Your task to perform on an android device: open the mobile data screen to see how much data has been used Image 0: 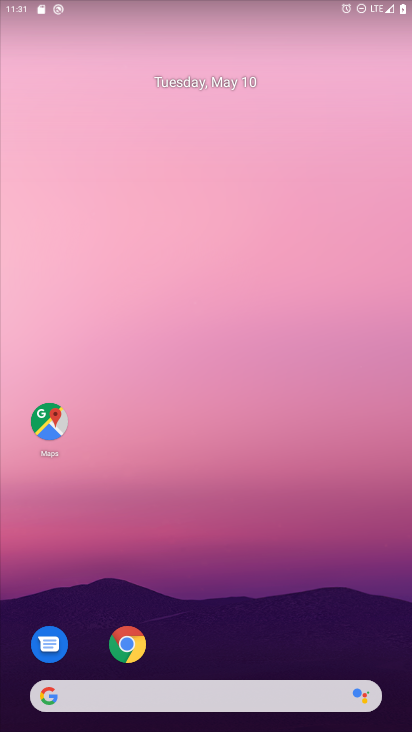
Step 0: drag from (217, 565) to (270, 191)
Your task to perform on an android device: open the mobile data screen to see how much data has been used Image 1: 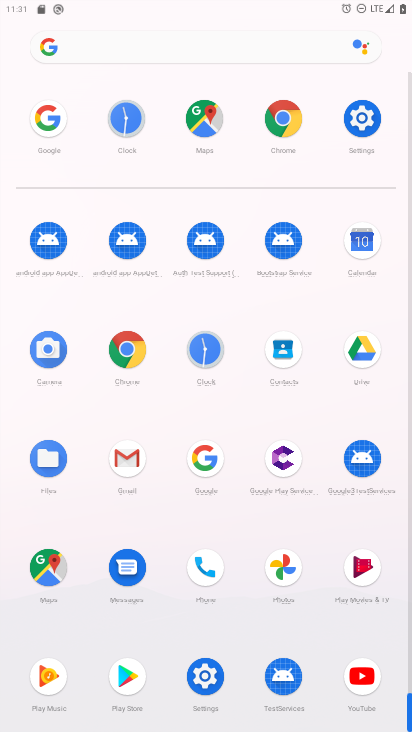
Step 1: click (369, 139)
Your task to perform on an android device: open the mobile data screen to see how much data has been used Image 2: 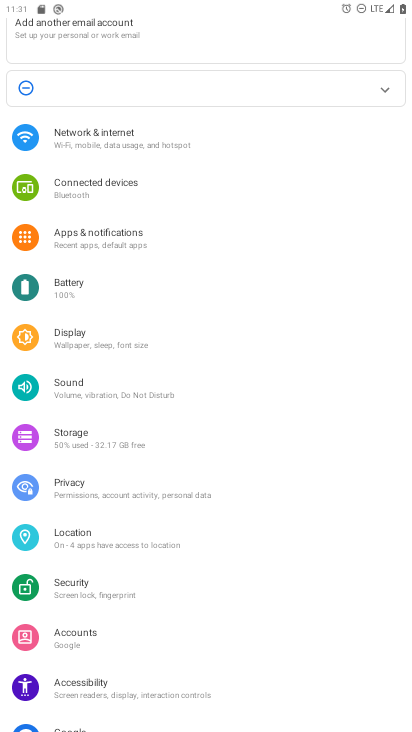
Step 2: click (193, 150)
Your task to perform on an android device: open the mobile data screen to see how much data has been used Image 3: 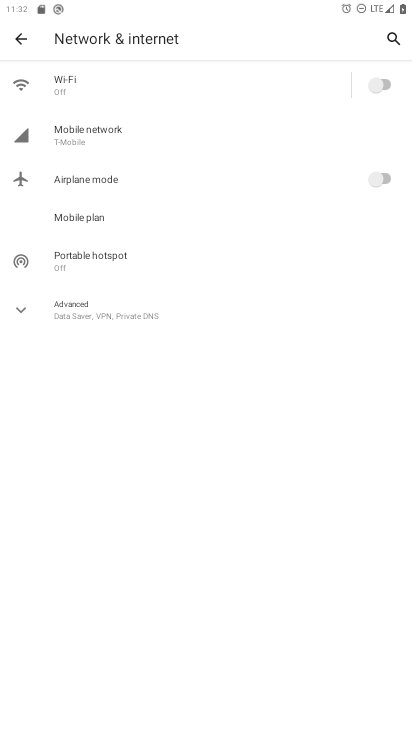
Step 3: click (163, 146)
Your task to perform on an android device: open the mobile data screen to see how much data has been used Image 4: 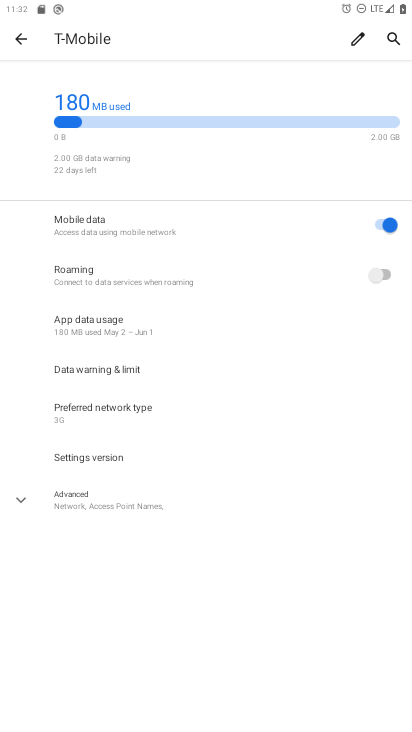
Step 4: task complete